Your task to perform on an android device: set the stopwatch Image 0: 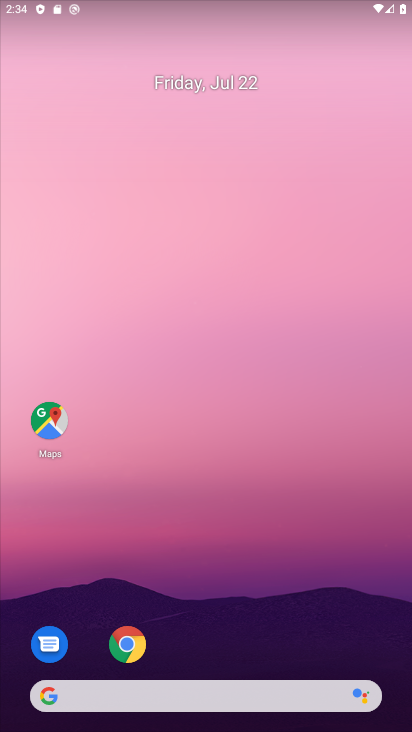
Step 0: press home button
Your task to perform on an android device: set the stopwatch Image 1: 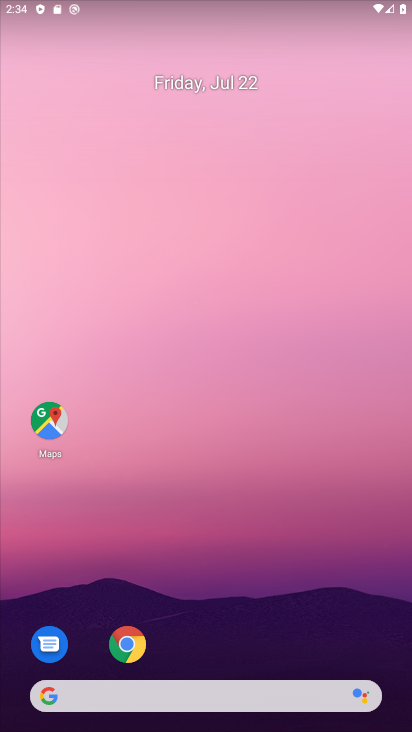
Step 1: drag from (234, 554) to (200, 249)
Your task to perform on an android device: set the stopwatch Image 2: 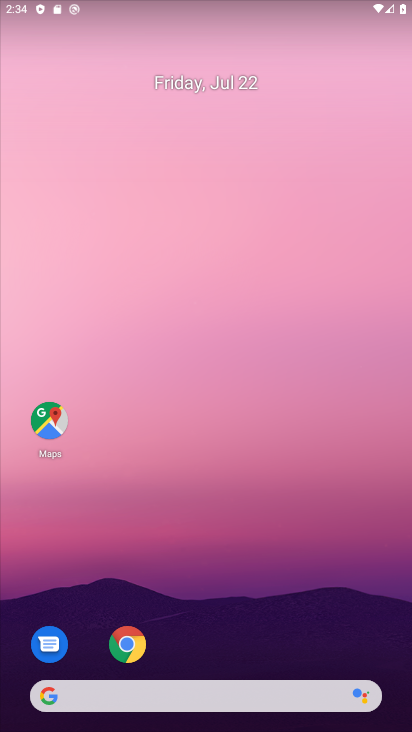
Step 2: drag from (230, 646) to (179, 1)
Your task to perform on an android device: set the stopwatch Image 3: 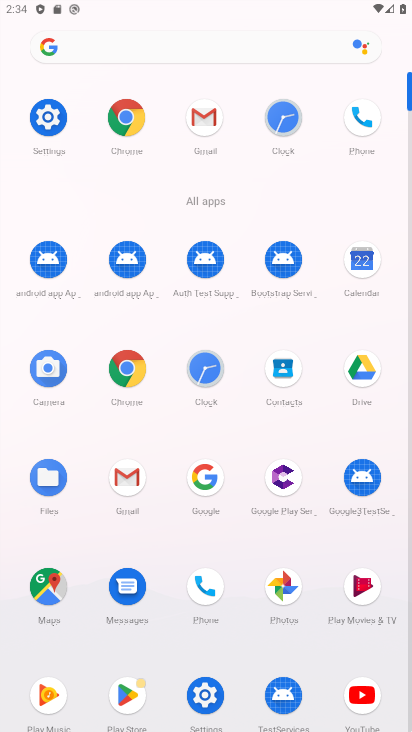
Step 3: click (276, 115)
Your task to perform on an android device: set the stopwatch Image 4: 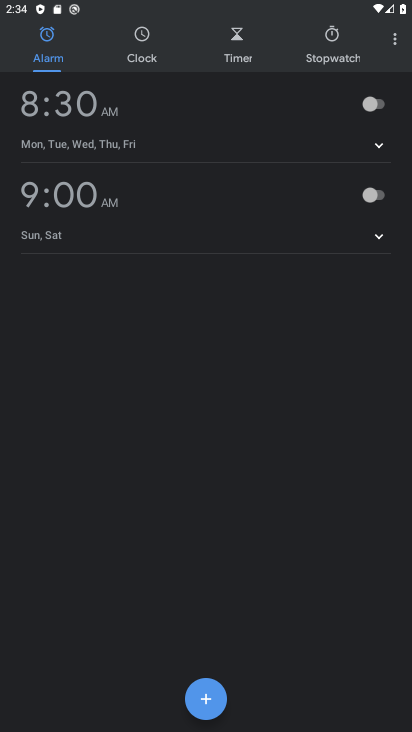
Step 4: click (335, 37)
Your task to perform on an android device: set the stopwatch Image 5: 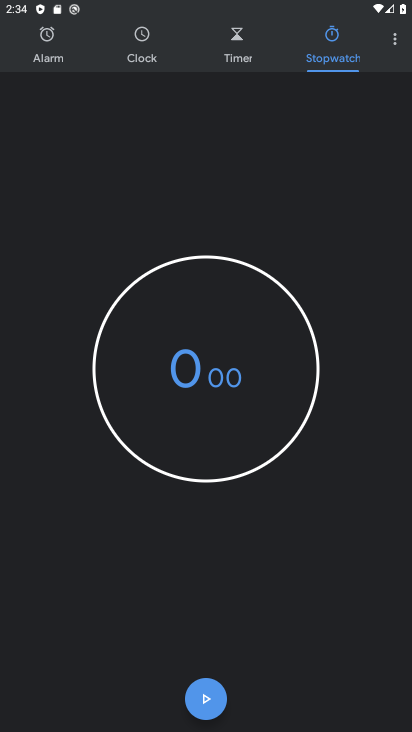
Step 5: click (203, 698)
Your task to perform on an android device: set the stopwatch Image 6: 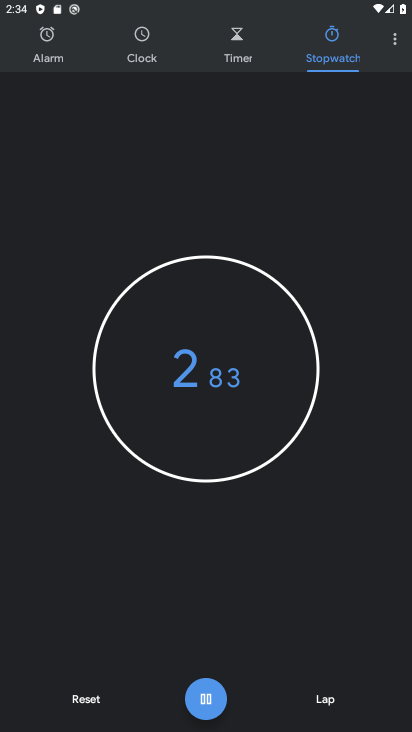
Step 6: task complete